Your task to perform on an android device: add a contact in the contacts app Image 0: 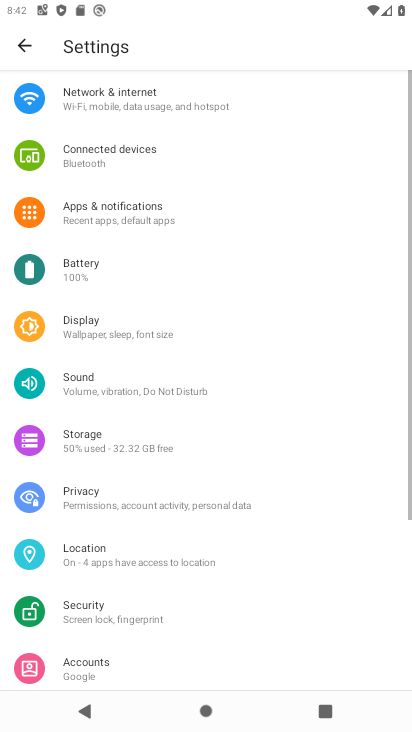
Step 0: press home button
Your task to perform on an android device: add a contact in the contacts app Image 1: 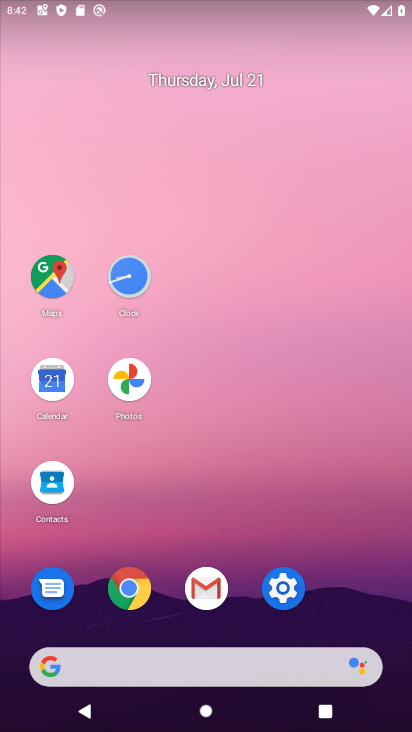
Step 1: click (48, 480)
Your task to perform on an android device: add a contact in the contacts app Image 2: 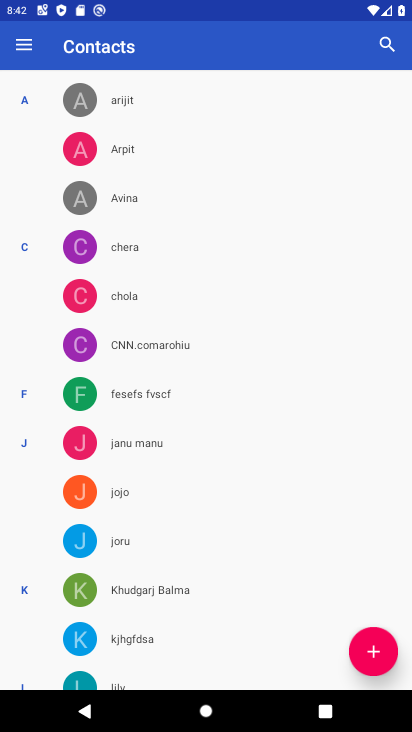
Step 2: click (372, 646)
Your task to perform on an android device: add a contact in the contacts app Image 3: 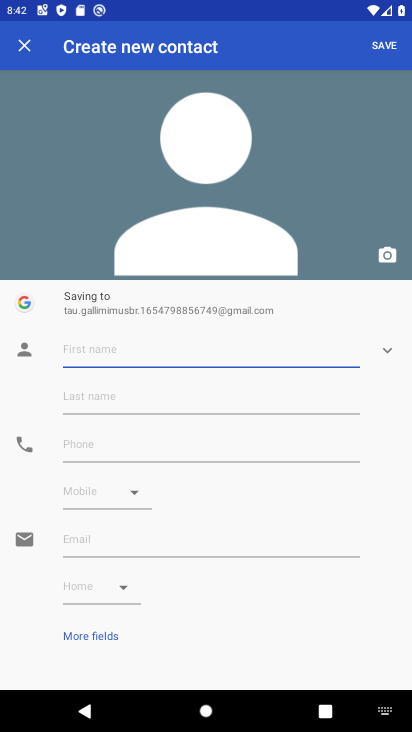
Step 3: type "kgfdfgh"
Your task to perform on an android device: add a contact in the contacts app Image 4: 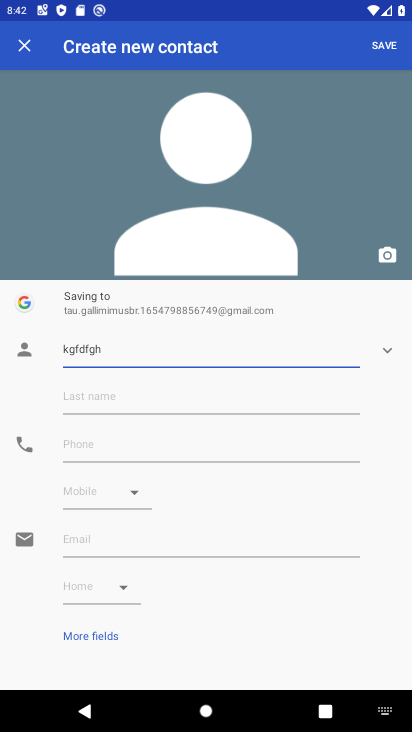
Step 4: click (88, 440)
Your task to perform on an android device: add a contact in the contacts app Image 5: 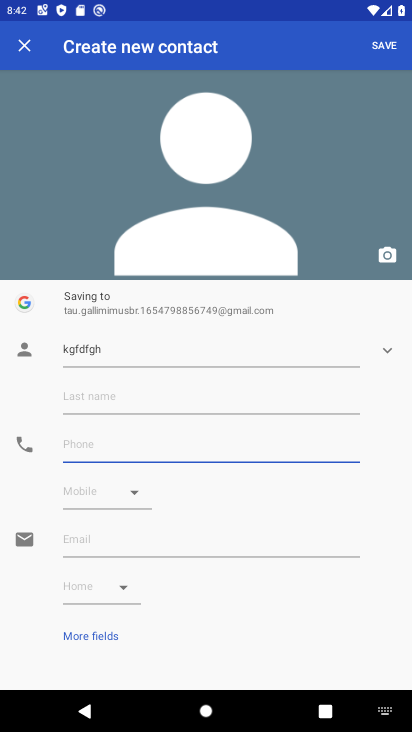
Step 5: type "09876545890"
Your task to perform on an android device: add a contact in the contacts app Image 6: 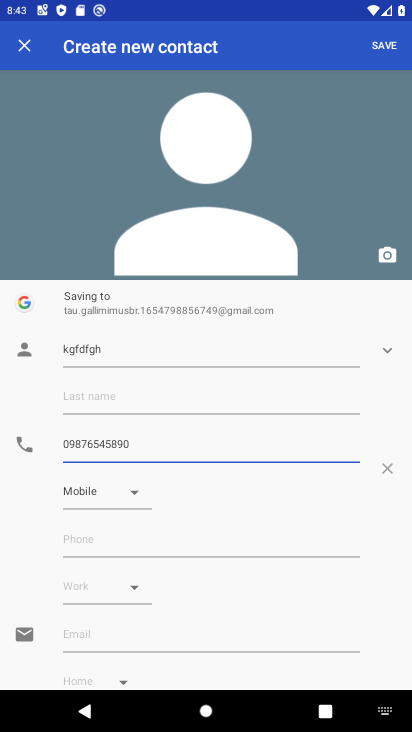
Step 6: click (385, 44)
Your task to perform on an android device: add a contact in the contacts app Image 7: 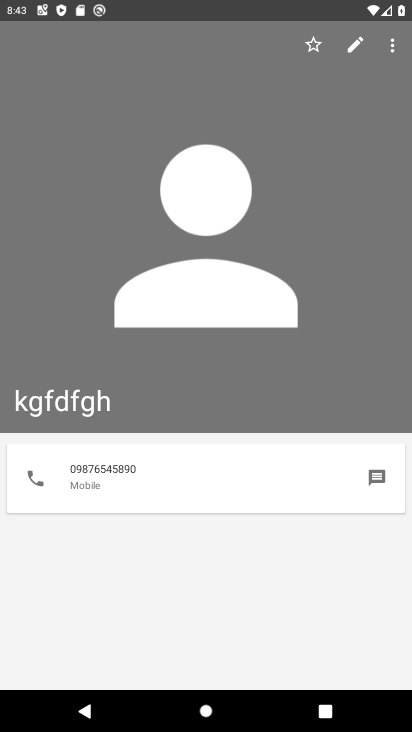
Step 7: task complete